Your task to perform on an android device: Open accessibility settings Image 0: 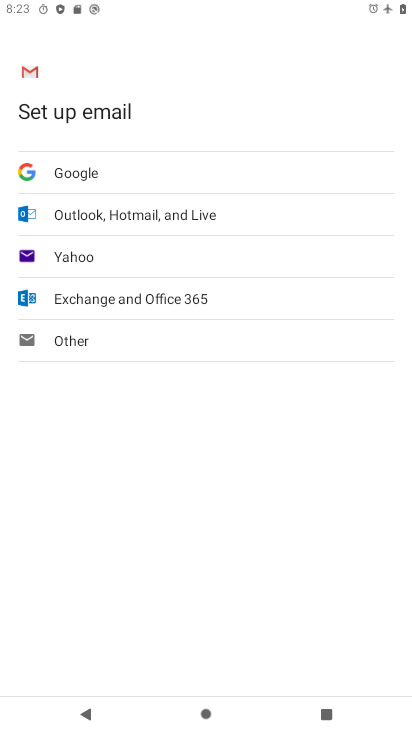
Step 0: press back button
Your task to perform on an android device: Open accessibility settings Image 1: 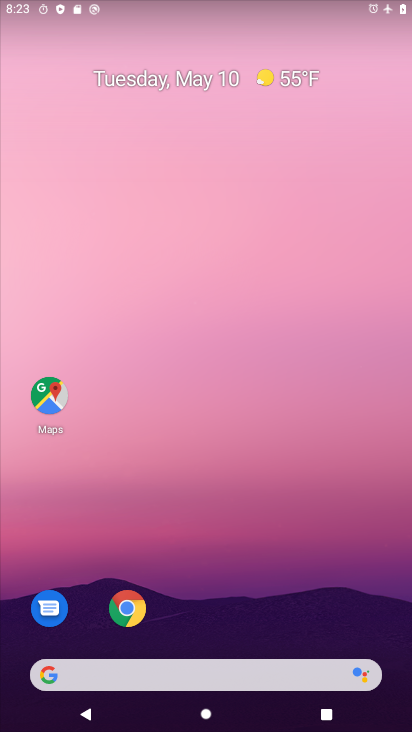
Step 1: drag from (214, 614) to (202, 119)
Your task to perform on an android device: Open accessibility settings Image 2: 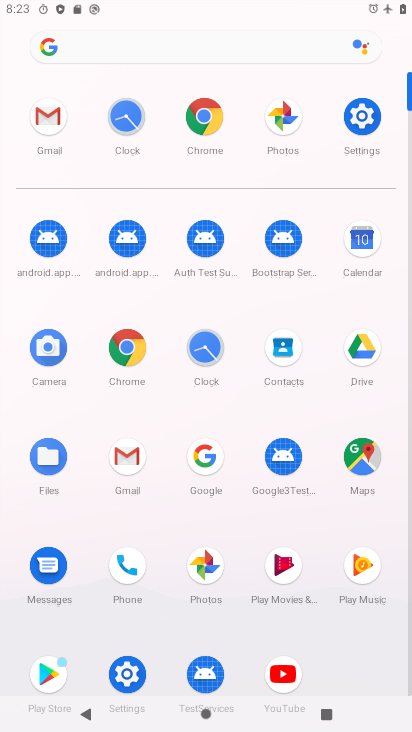
Step 2: click (364, 116)
Your task to perform on an android device: Open accessibility settings Image 3: 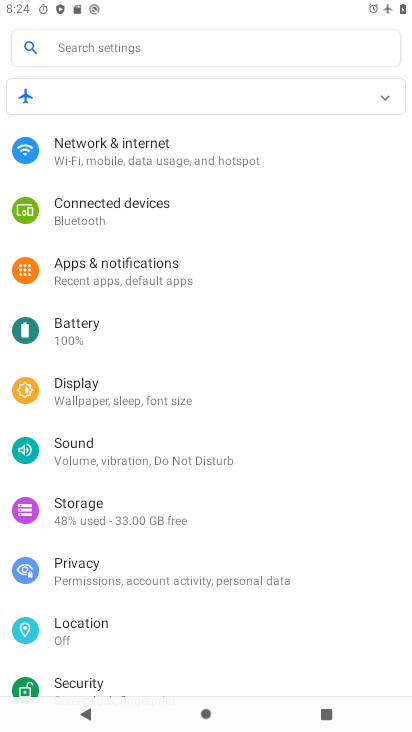
Step 3: drag from (165, 501) to (202, 427)
Your task to perform on an android device: Open accessibility settings Image 4: 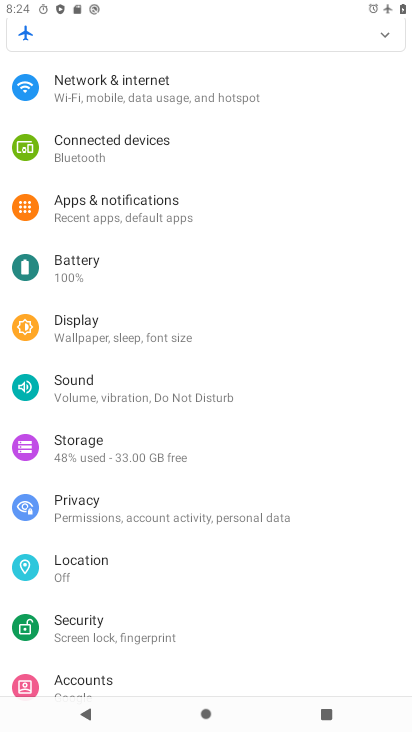
Step 4: drag from (128, 527) to (174, 453)
Your task to perform on an android device: Open accessibility settings Image 5: 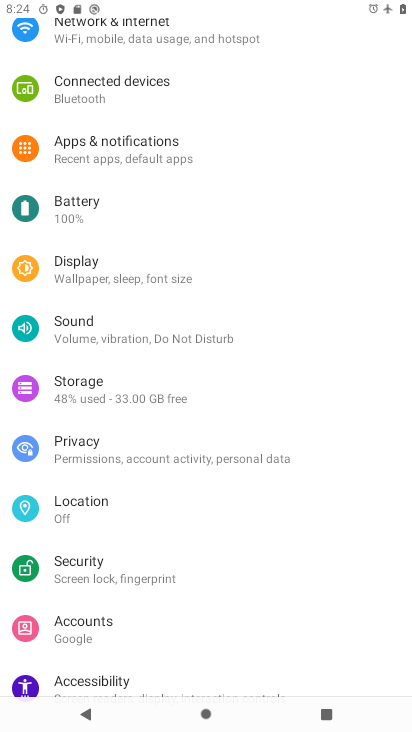
Step 5: drag from (134, 514) to (188, 425)
Your task to perform on an android device: Open accessibility settings Image 6: 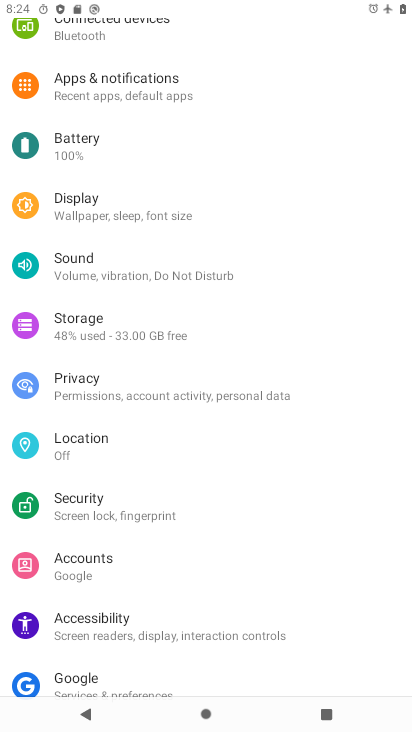
Step 6: click (76, 629)
Your task to perform on an android device: Open accessibility settings Image 7: 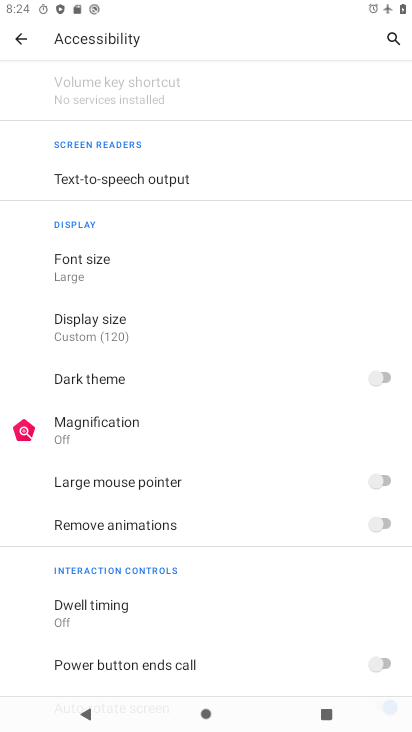
Step 7: task complete